Your task to perform on an android device: open sync settings in chrome Image 0: 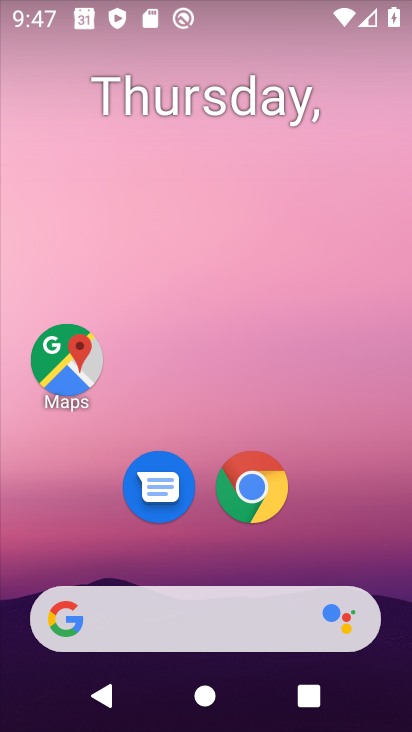
Step 0: click (265, 507)
Your task to perform on an android device: open sync settings in chrome Image 1: 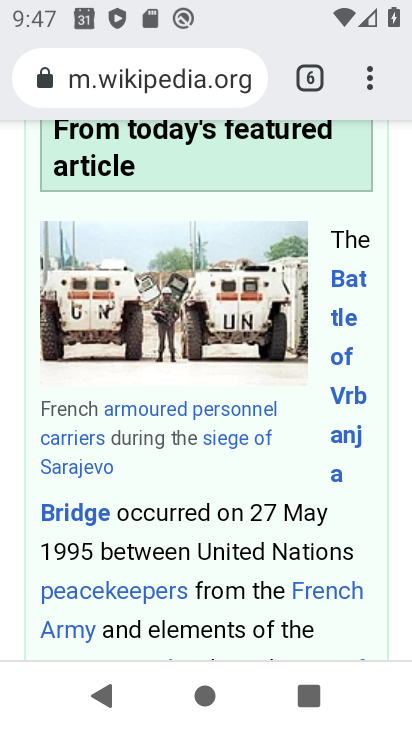
Step 1: click (367, 82)
Your task to perform on an android device: open sync settings in chrome Image 2: 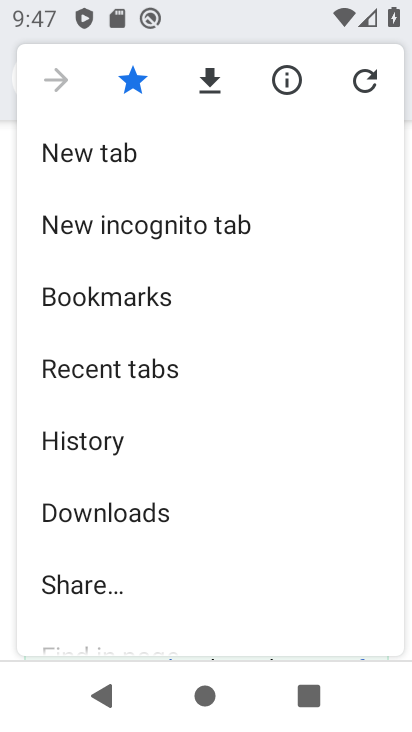
Step 2: drag from (158, 634) to (175, 511)
Your task to perform on an android device: open sync settings in chrome Image 3: 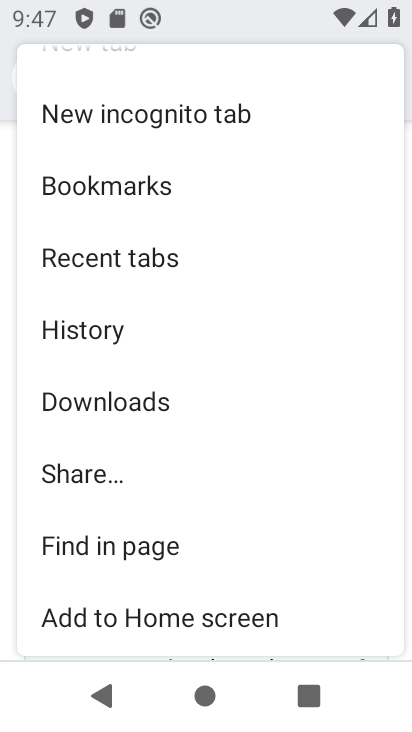
Step 3: drag from (220, 553) to (205, 276)
Your task to perform on an android device: open sync settings in chrome Image 4: 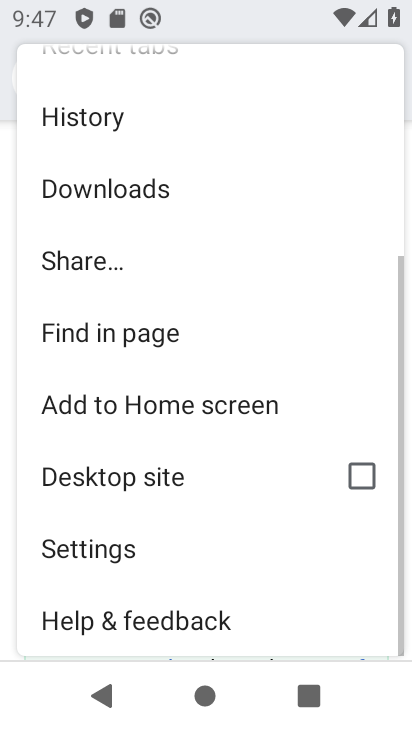
Step 4: click (102, 544)
Your task to perform on an android device: open sync settings in chrome Image 5: 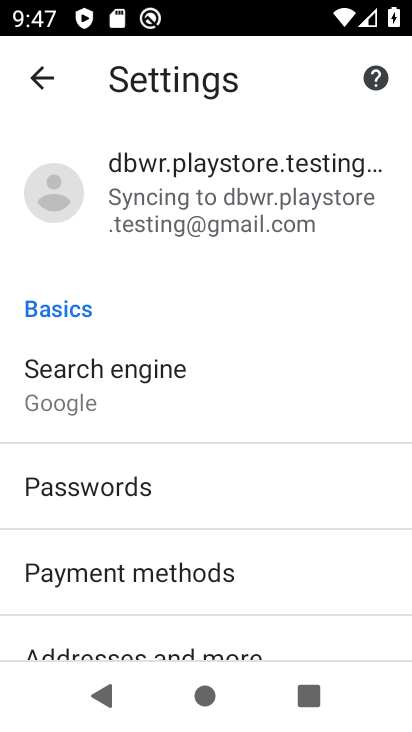
Step 5: drag from (184, 600) to (196, 272)
Your task to perform on an android device: open sync settings in chrome Image 6: 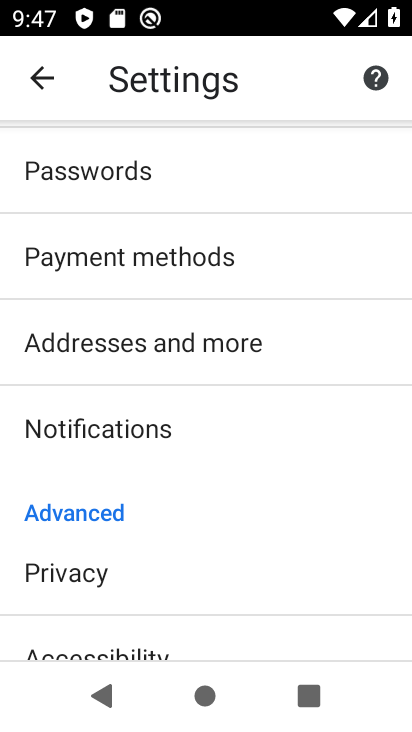
Step 6: drag from (185, 598) to (196, 357)
Your task to perform on an android device: open sync settings in chrome Image 7: 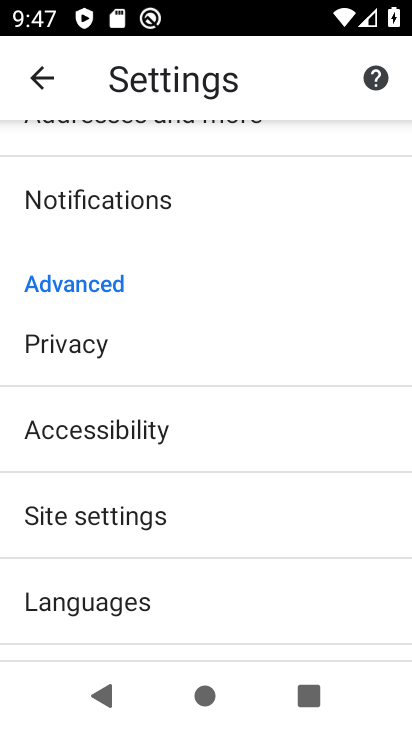
Step 7: click (90, 521)
Your task to perform on an android device: open sync settings in chrome Image 8: 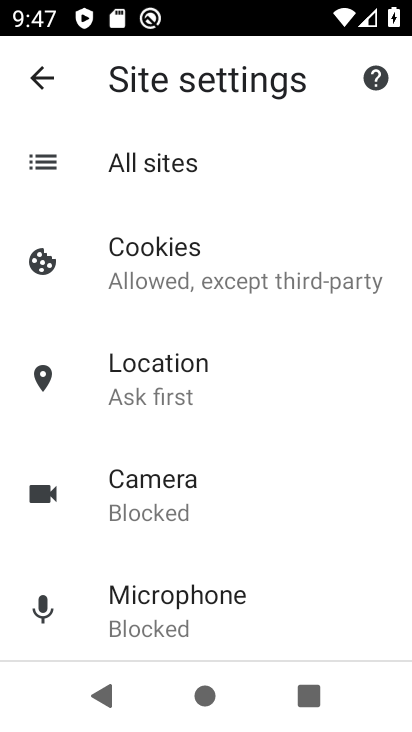
Step 8: drag from (228, 623) to (164, 136)
Your task to perform on an android device: open sync settings in chrome Image 9: 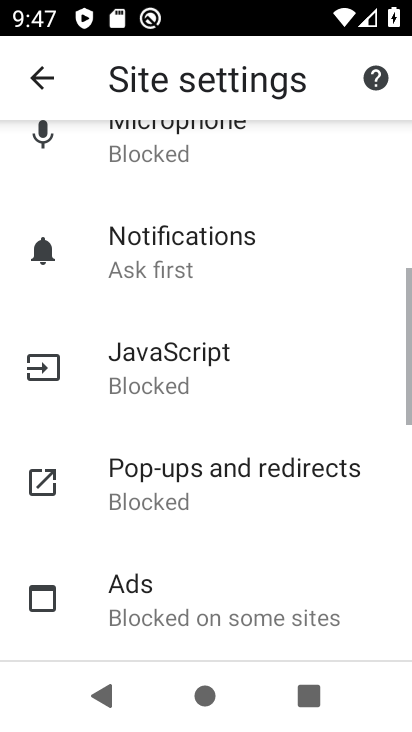
Step 9: drag from (204, 574) to (216, 336)
Your task to perform on an android device: open sync settings in chrome Image 10: 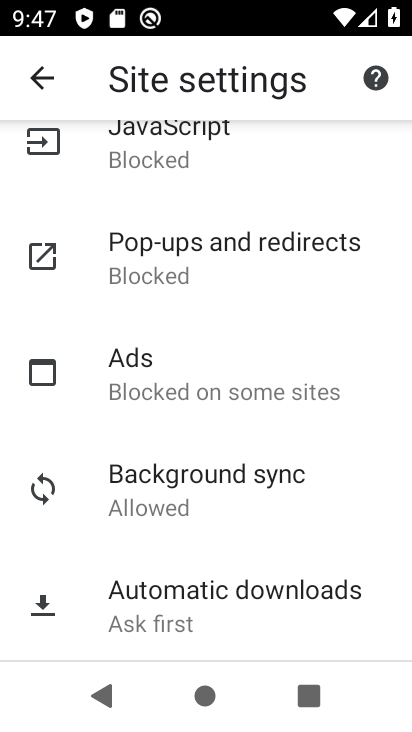
Step 10: click (208, 486)
Your task to perform on an android device: open sync settings in chrome Image 11: 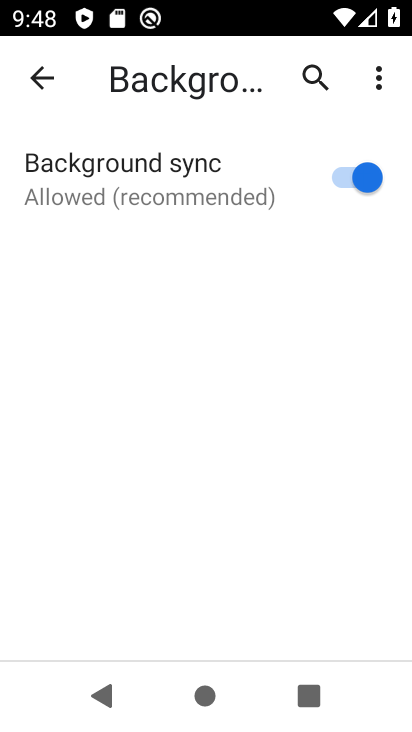
Step 11: task complete